Your task to perform on an android device: Open Google Chrome and open the bookmarks view Image 0: 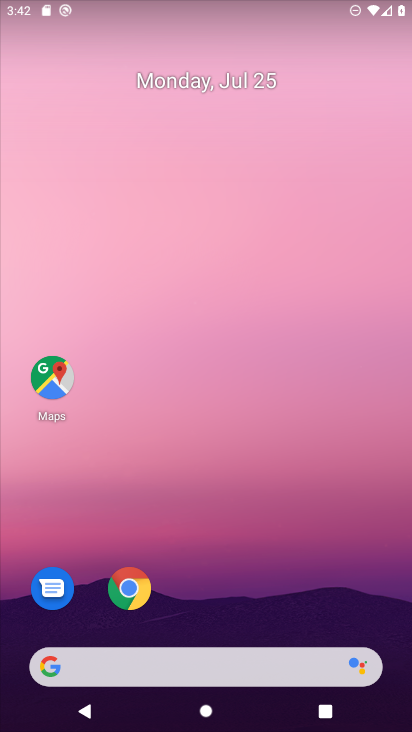
Step 0: drag from (270, 690) to (278, 311)
Your task to perform on an android device: Open Google Chrome and open the bookmarks view Image 1: 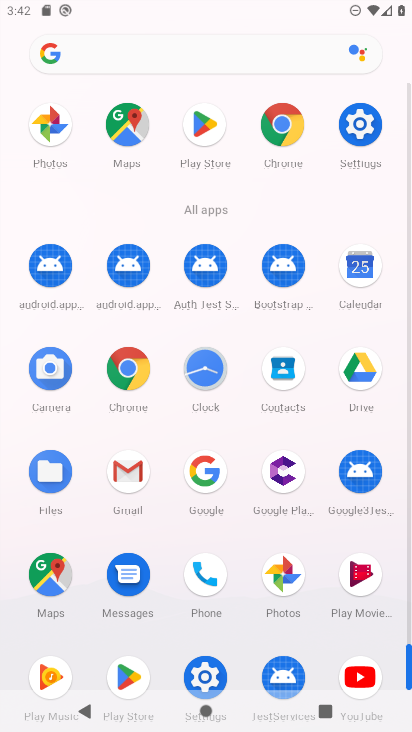
Step 1: click (279, 125)
Your task to perform on an android device: Open Google Chrome and open the bookmarks view Image 2: 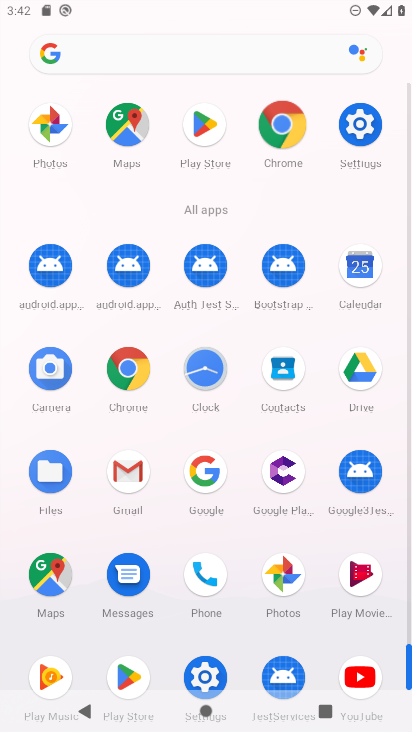
Step 2: click (282, 127)
Your task to perform on an android device: Open Google Chrome and open the bookmarks view Image 3: 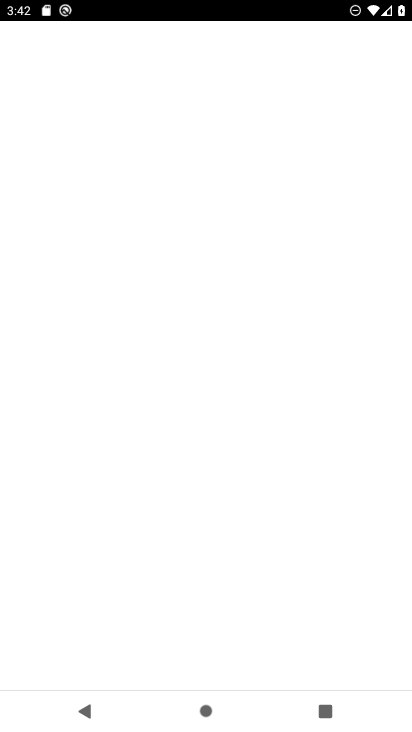
Step 3: click (282, 127)
Your task to perform on an android device: Open Google Chrome and open the bookmarks view Image 4: 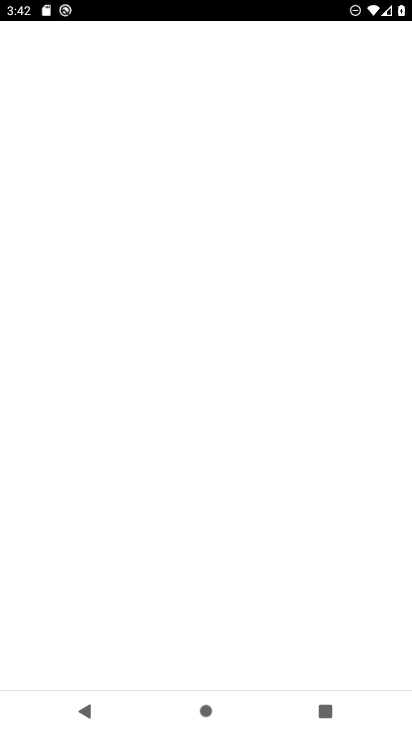
Step 4: click (281, 126)
Your task to perform on an android device: Open Google Chrome and open the bookmarks view Image 5: 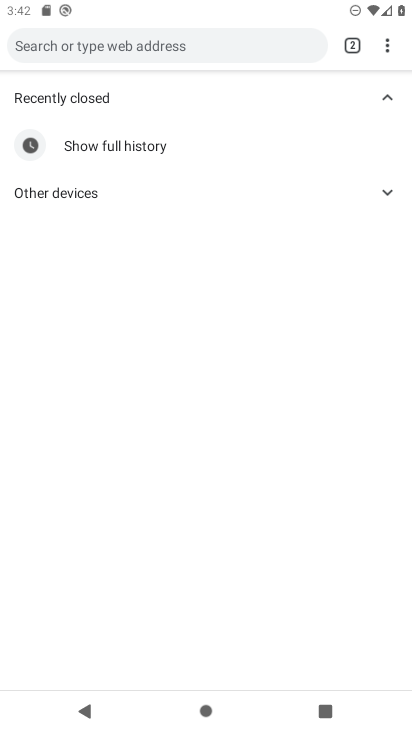
Step 5: task complete